Your task to perform on an android device: add a label to a message in the gmail app Image 0: 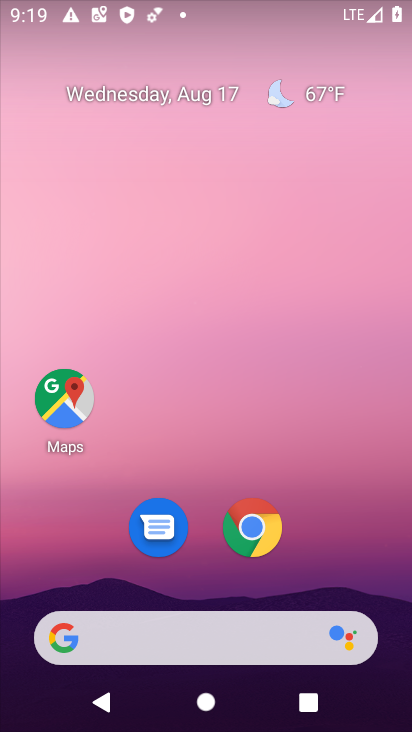
Step 0: drag from (197, 578) to (307, 57)
Your task to perform on an android device: add a label to a message in the gmail app Image 1: 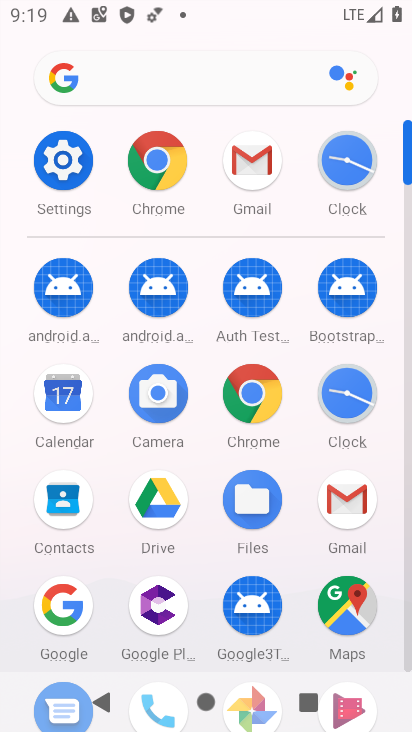
Step 1: click (246, 164)
Your task to perform on an android device: add a label to a message in the gmail app Image 2: 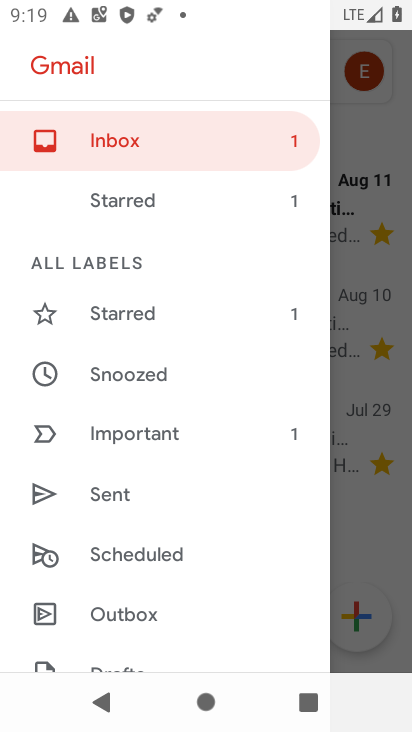
Step 2: click (352, 154)
Your task to perform on an android device: add a label to a message in the gmail app Image 3: 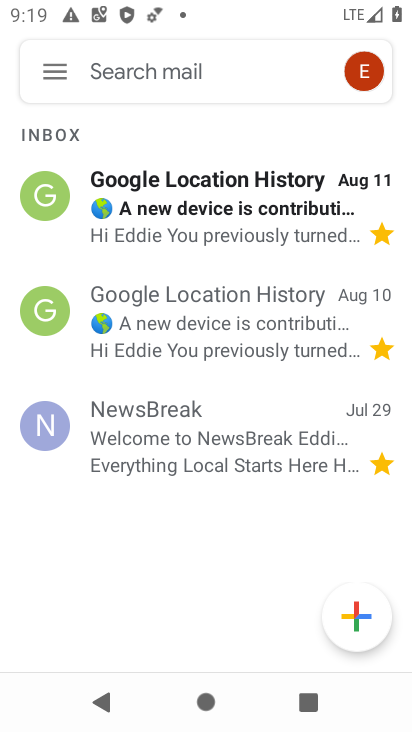
Step 3: click (48, 208)
Your task to perform on an android device: add a label to a message in the gmail app Image 4: 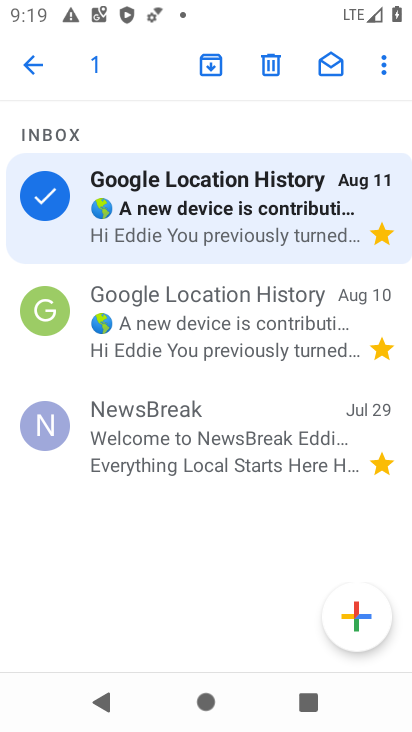
Step 4: click (387, 53)
Your task to perform on an android device: add a label to a message in the gmail app Image 5: 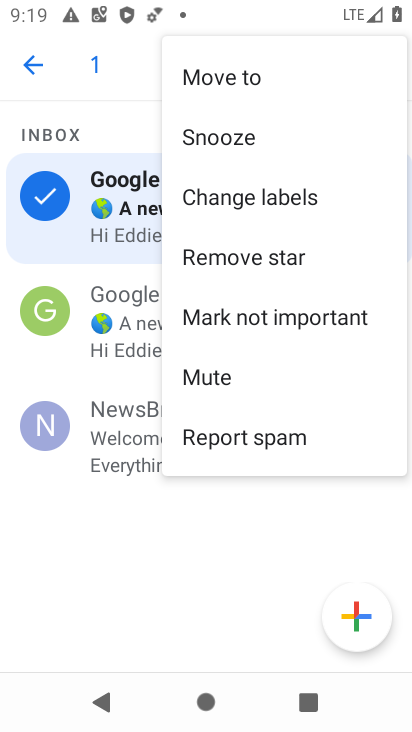
Step 5: click (231, 206)
Your task to perform on an android device: add a label to a message in the gmail app Image 6: 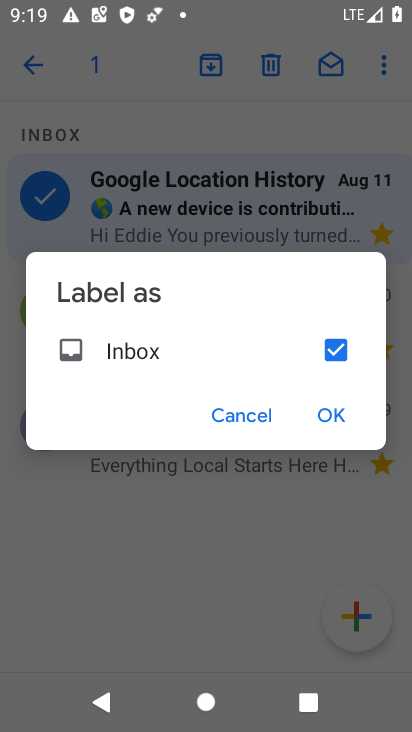
Step 6: click (334, 416)
Your task to perform on an android device: add a label to a message in the gmail app Image 7: 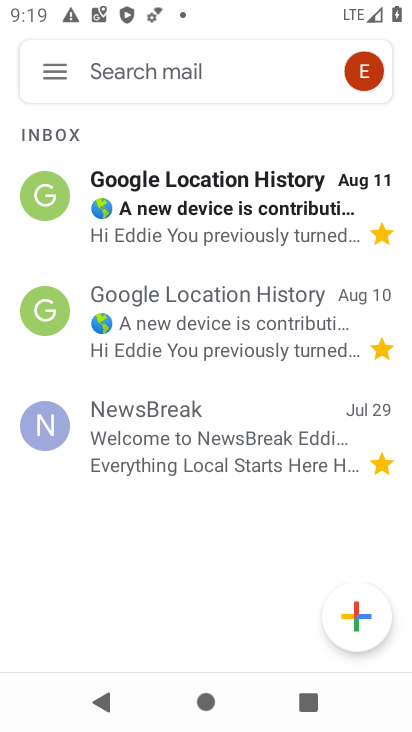
Step 7: task complete